Your task to perform on an android device: change alarm snooze length Image 0: 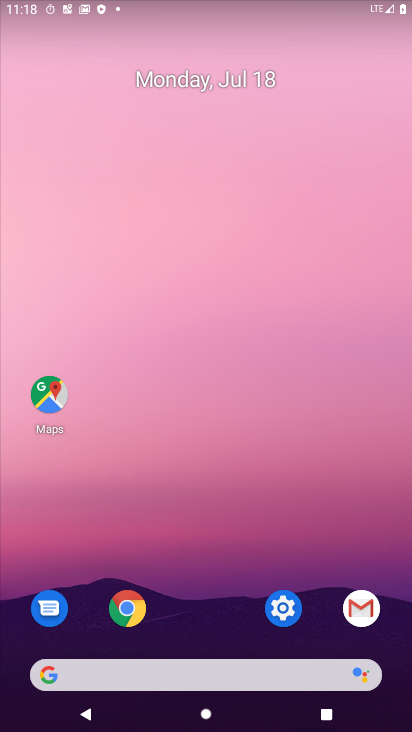
Step 0: drag from (247, 676) to (183, 164)
Your task to perform on an android device: change alarm snooze length Image 1: 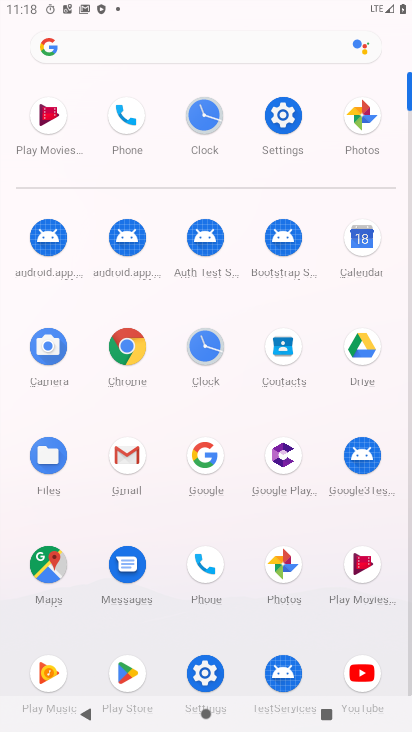
Step 1: click (198, 353)
Your task to perform on an android device: change alarm snooze length Image 2: 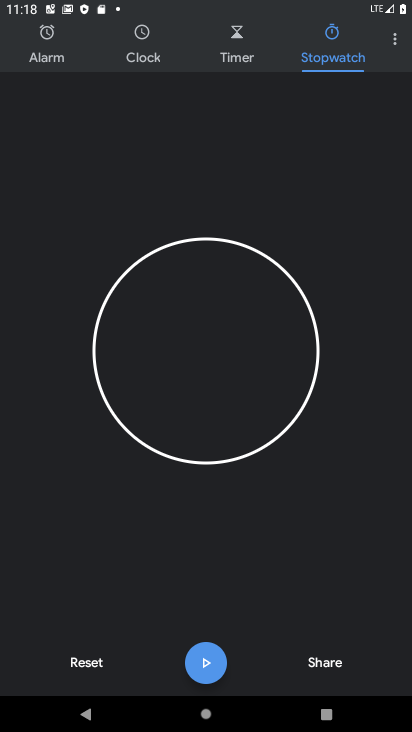
Step 2: click (396, 40)
Your task to perform on an android device: change alarm snooze length Image 3: 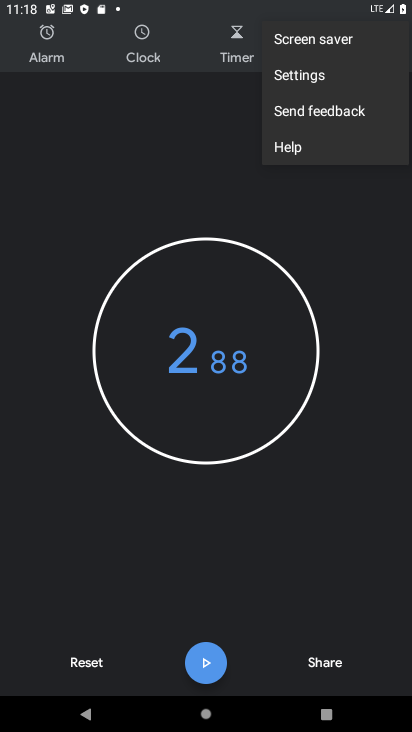
Step 3: click (321, 71)
Your task to perform on an android device: change alarm snooze length Image 4: 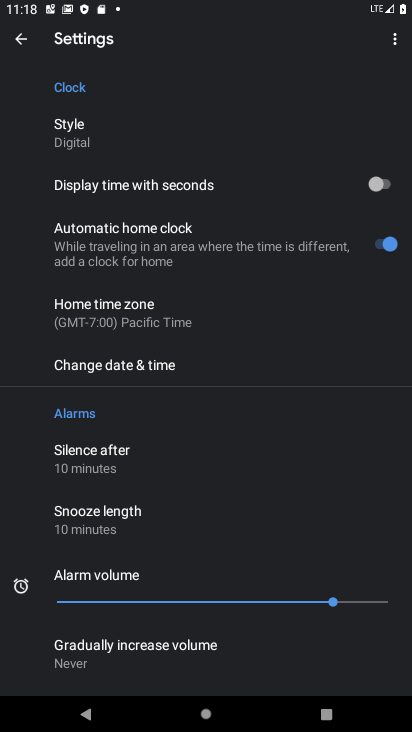
Step 4: click (161, 525)
Your task to perform on an android device: change alarm snooze length Image 5: 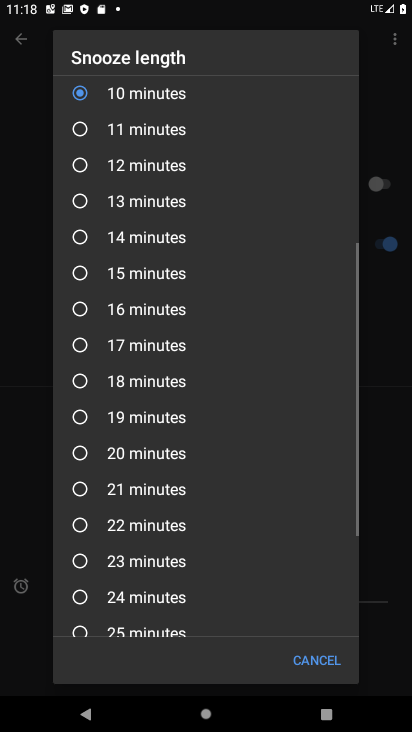
Step 5: click (122, 327)
Your task to perform on an android device: change alarm snooze length Image 6: 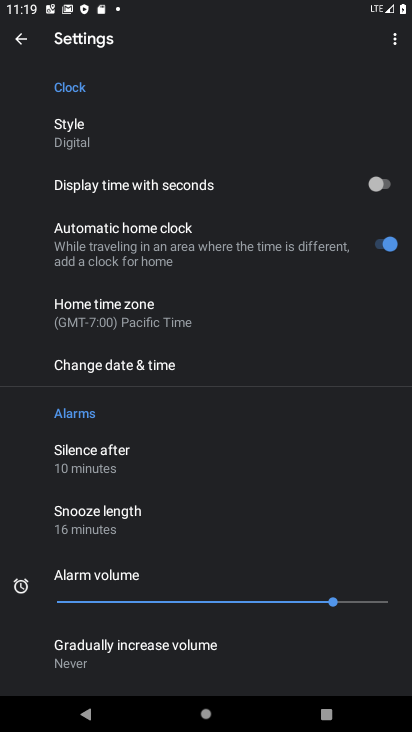
Step 6: task complete